Your task to perform on an android device: Search for sushi restaurants on Maps Image 0: 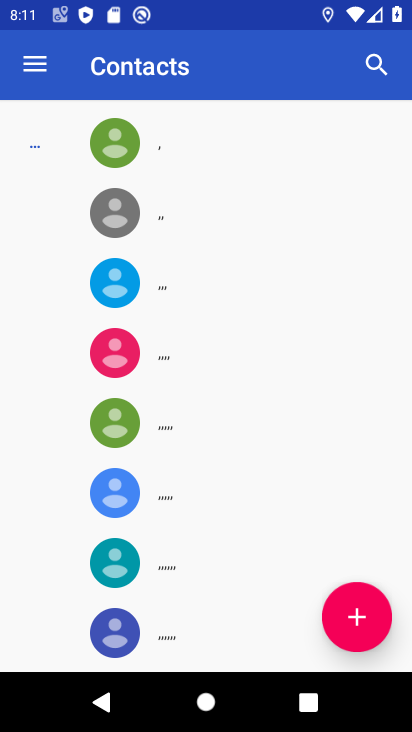
Step 0: press home button
Your task to perform on an android device: Search for sushi restaurants on Maps Image 1: 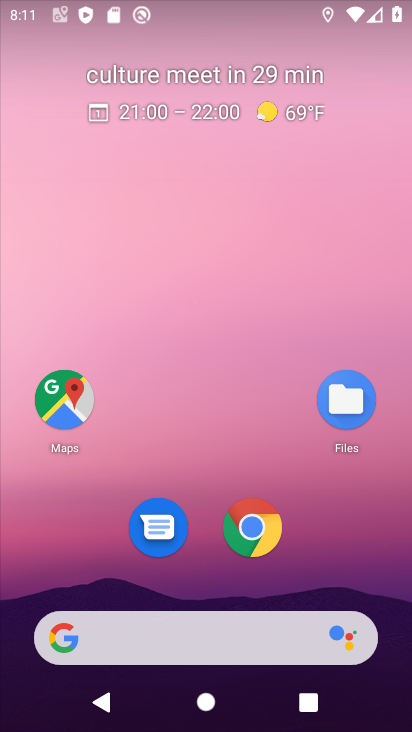
Step 1: click (62, 411)
Your task to perform on an android device: Search for sushi restaurants on Maps Image 2: 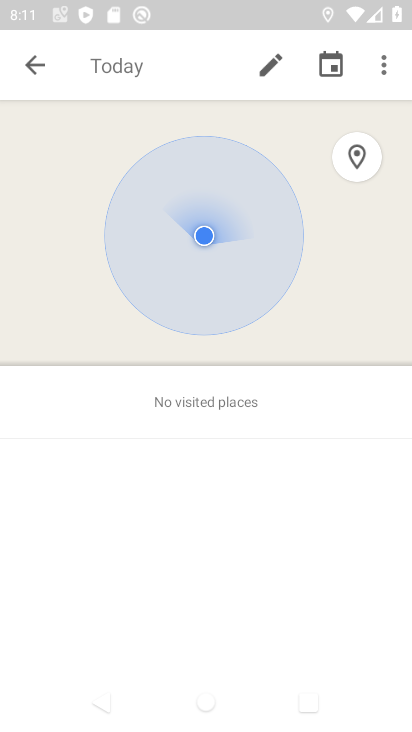
Step 2: press back button
Your task to perform on an android device: Search for sushi restaurants on Maps Image 3: 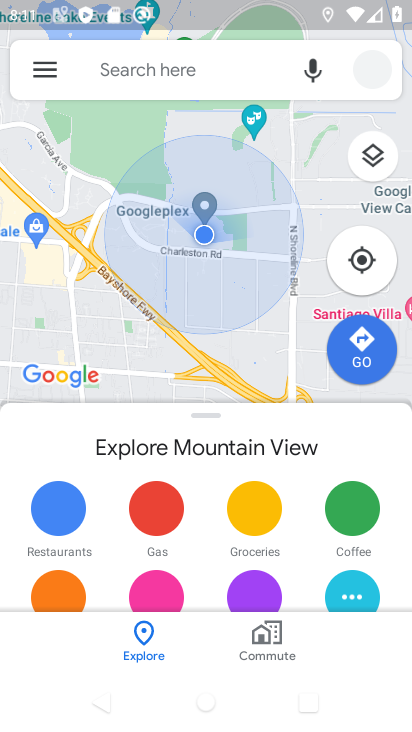
Step 3: click (130, 79)
Your task to perform on an android device: Search for sushi restaurants on Maps Image 4: 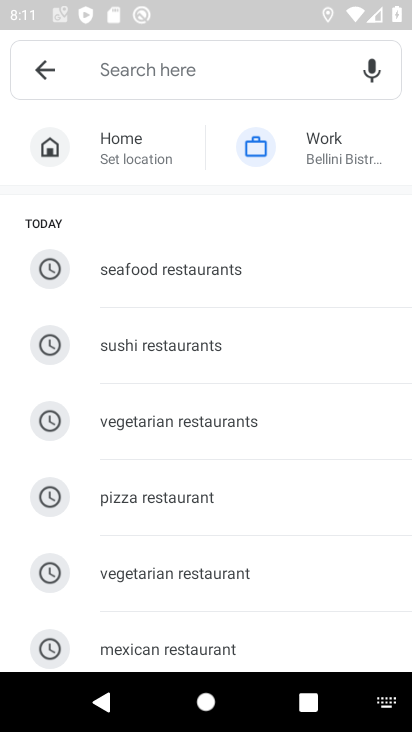
Step 4: click (173, 333)
Your task to perform on an android device: Search for sushi restaurants on Maps Image 5: 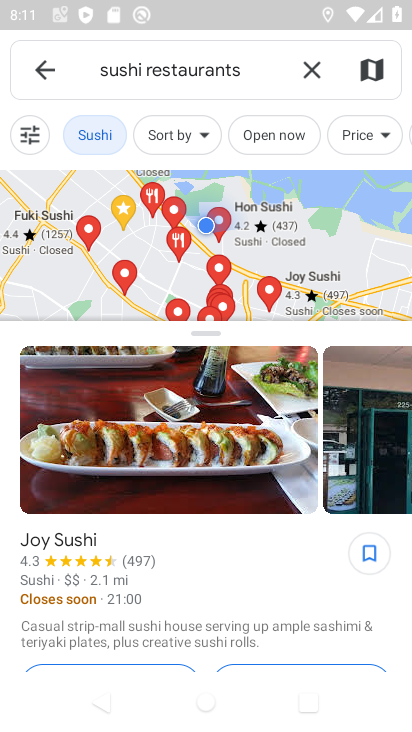
Step 5: task complete